Your task to perform on an android device: uninstall "PUBG MOBILE" Image 0: 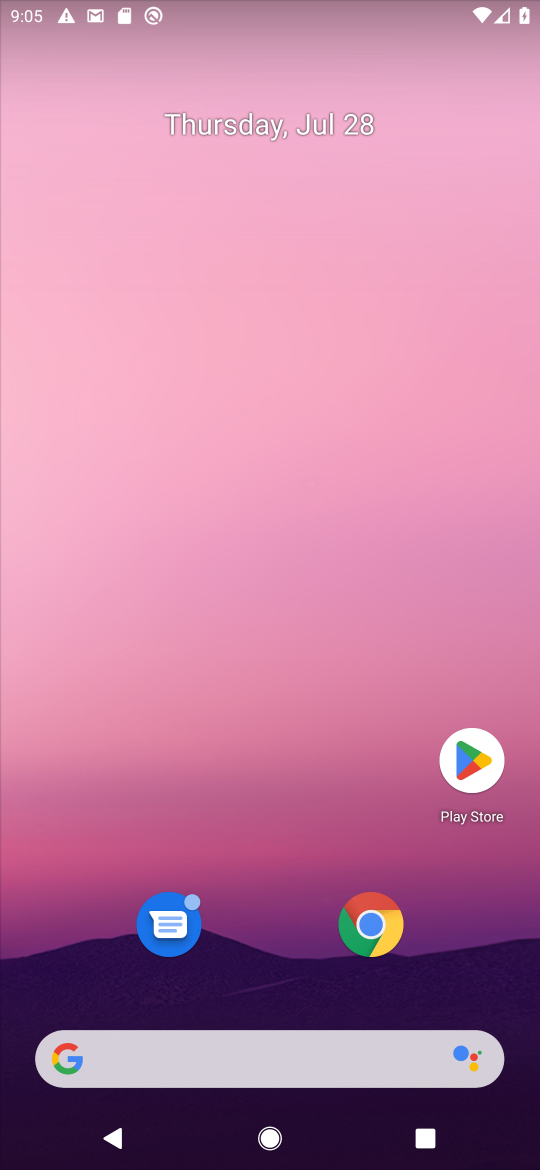
Step 0: press home button
Your task to perform on an android device: uninstall "PUBG MOBILE" Image 1: 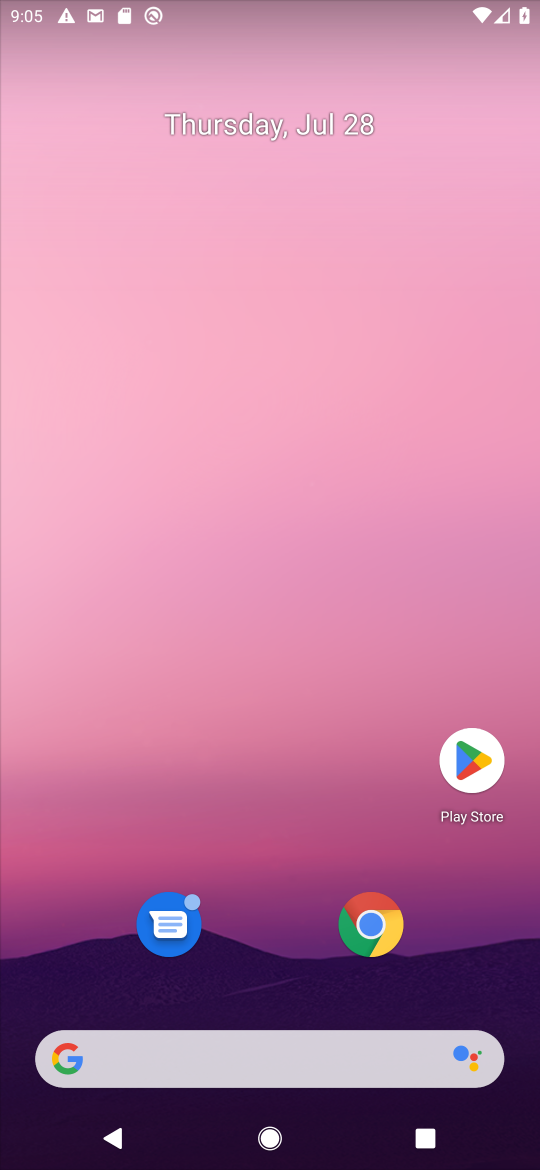
Step 1: click (481, 749)
Your task to perform on an android device: uninstall "PUBG MOBILE" Image 2: 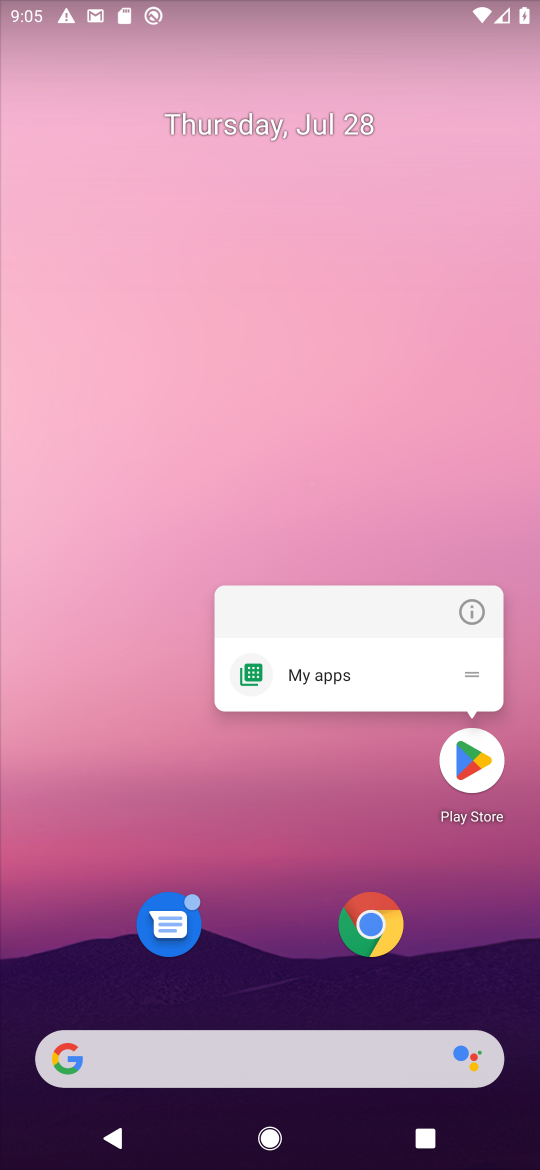
Step 2: click (467, 747)
Your task to perform on an android device: uninstall "PUBG MOBILE" Image 3: 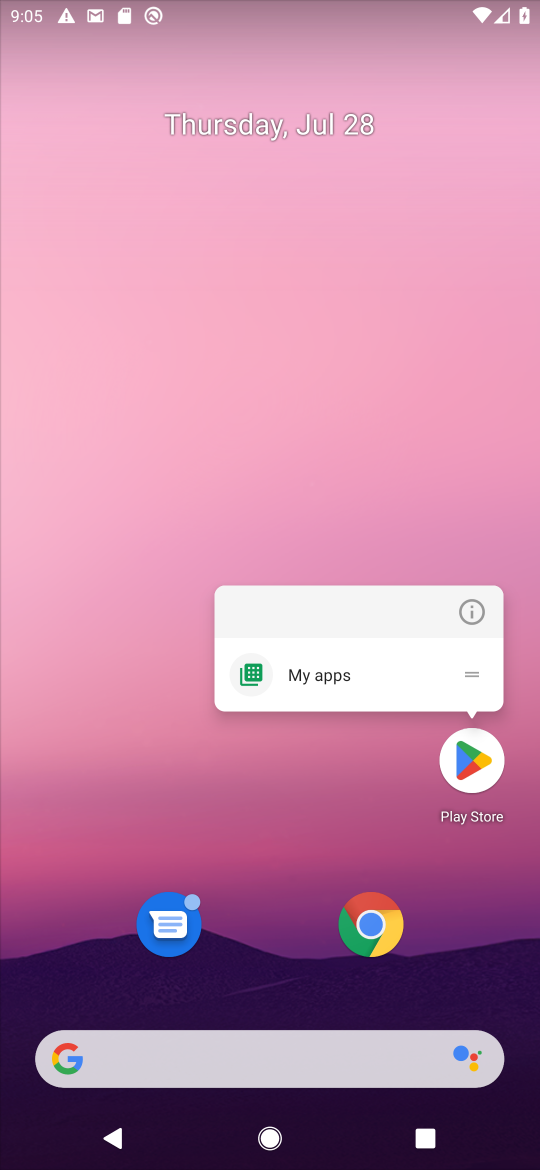
Step 3: click (458, 759)
Your task to perform on an android device: uninstall "PUBG MOBILE" Image 4: 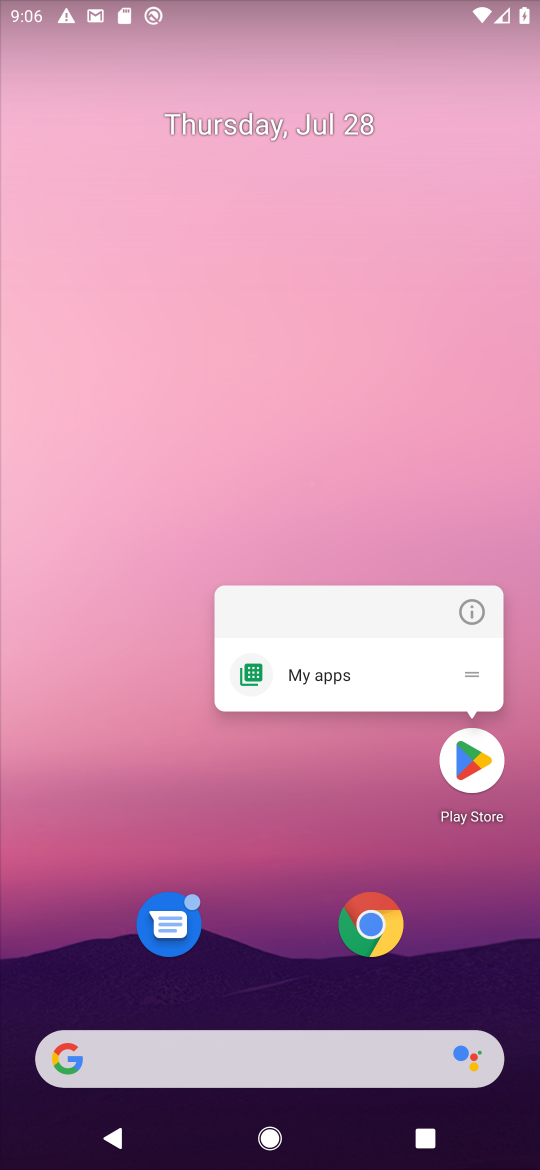
Step 4: click (460, 768)
Your task to perform on an android device: uninstall "PUBG MOBILE" Image 5: 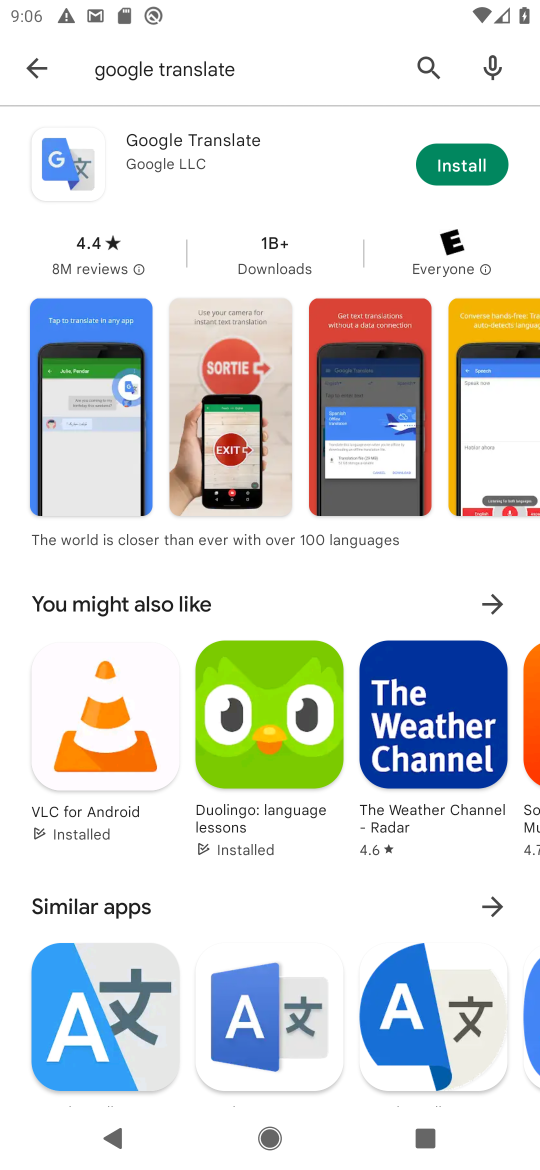
Step 5: click (423, 47)
Your task to perform on an android device: uninstall "PUBG MOBILE" Image 6: 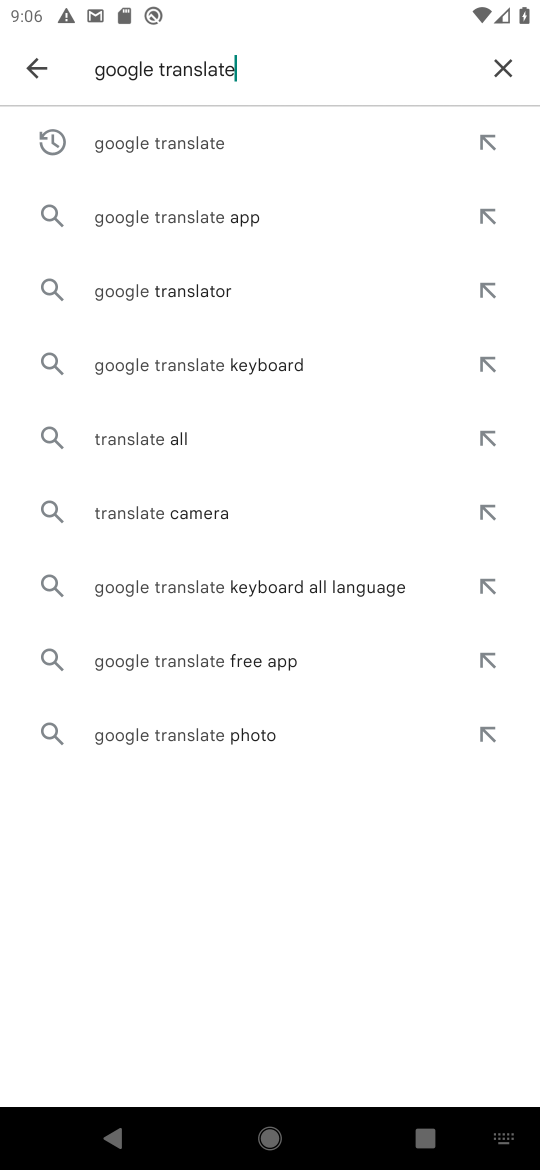
Step 6: click (500, 72)
Your task to perform on an android device: uninstall "PUBG MOBILE" Image 7: 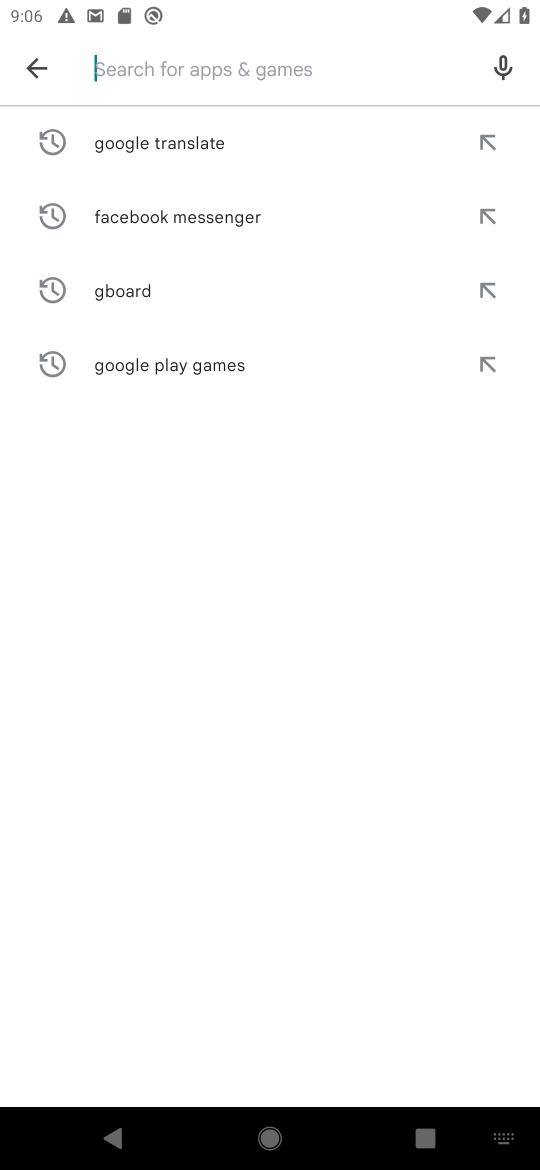
Step 7: type "PUBG MOBILE"
Your task to perform on an android device: uninstall "PUBG MOBILE" Image 8: 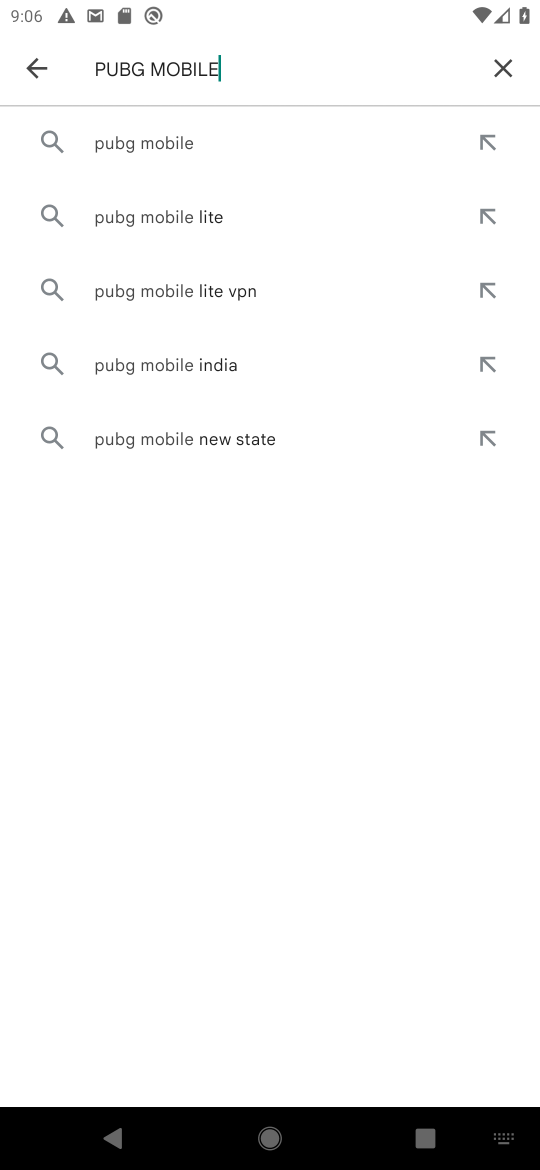
Step 8: click (148, 138)
Your task to perform on an android device: uninstall "PUBG MOBILE" Image 9: 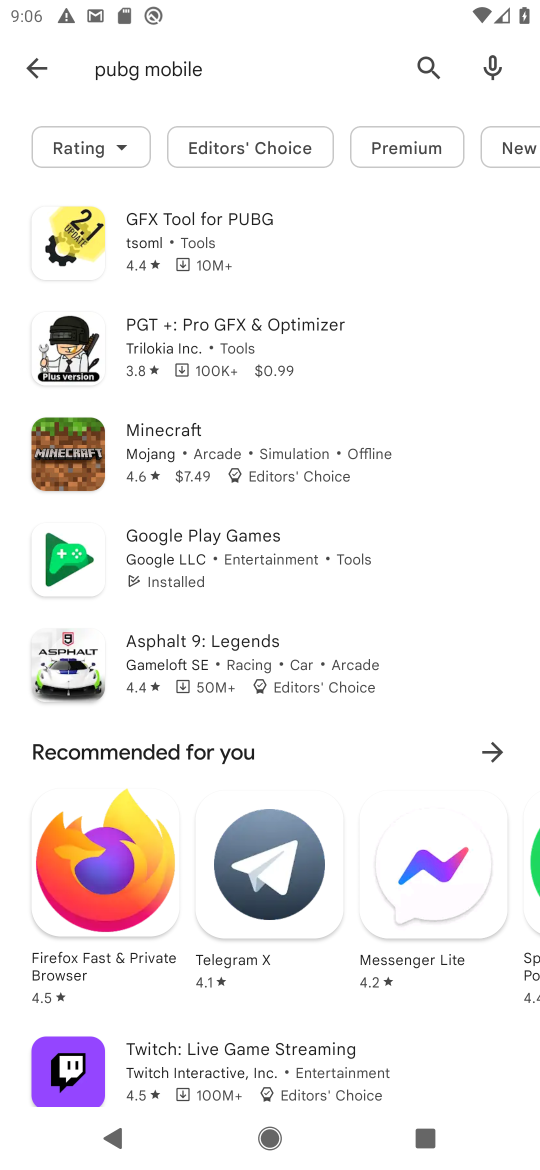
Step 9: click (202, 229)
Your task to perform on an android device: uninstall "PUBG MOBILE" Image 10: 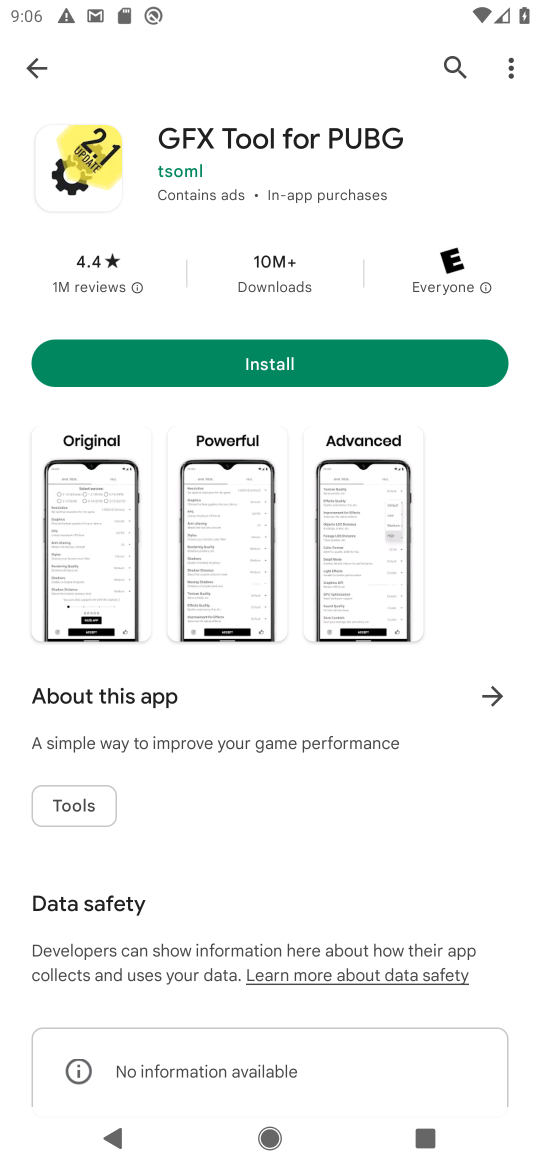
Step 10: task complete